Your task to perform on an android device: check android version Image 0: 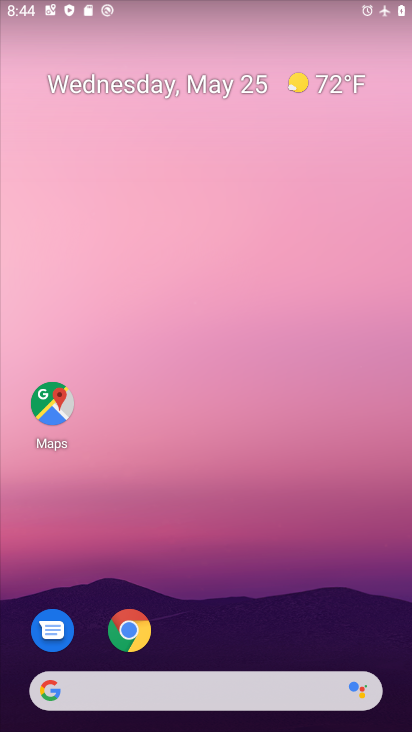
Step 0: drag from (226, 639) to (242, 203)
Your task to perform on an android device: check android version Image 1: 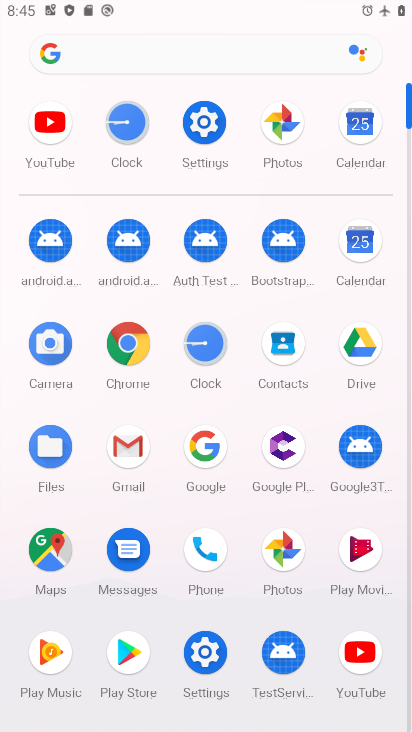
Step 1: click (207, 134)
Your task to perform on an android device: check android version Image 2: 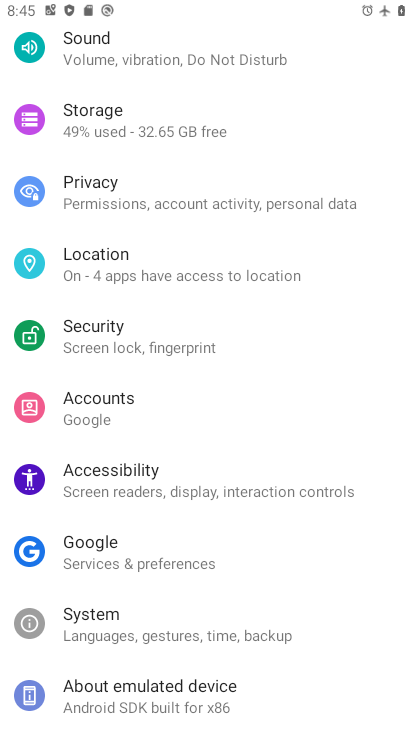
Step 2: drag from (259, 652) to (257, 246)
Your task to perform on an android device: check android version Image 3: 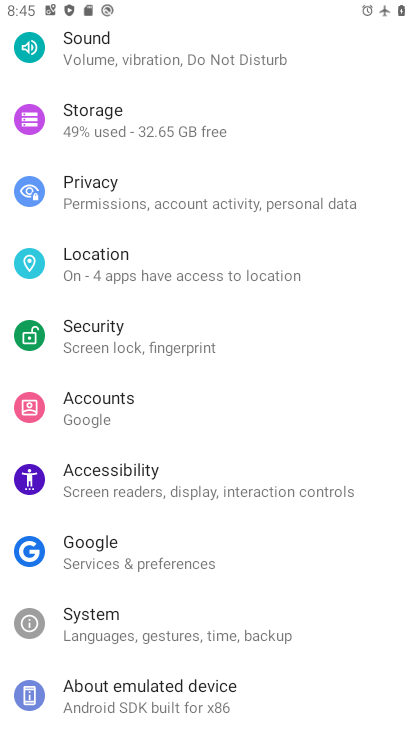
Step 3: drag from (204, 688) to (250, 465)
Your task to perform on an android device: check android version Image 4: 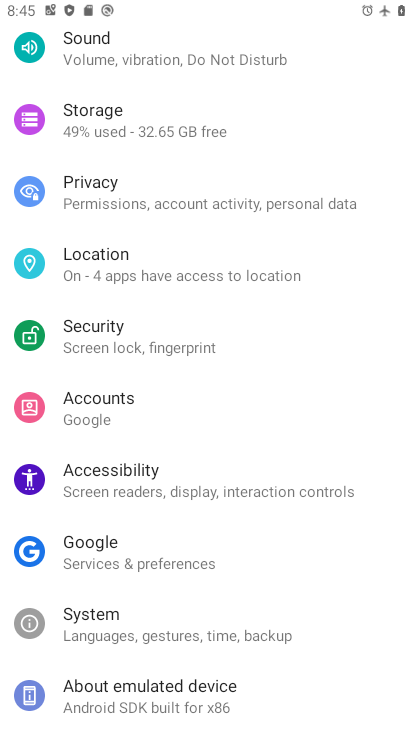
Step 4: click (195, 689)
Your task to perform on an android device: check android version Image 5: 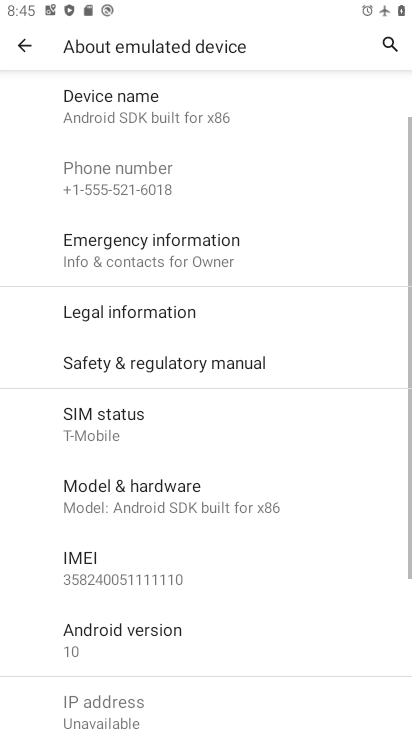
Step 5: drag from (236, 661) to (250, 321)
Your task to perform on an android device: check android version Image 6: 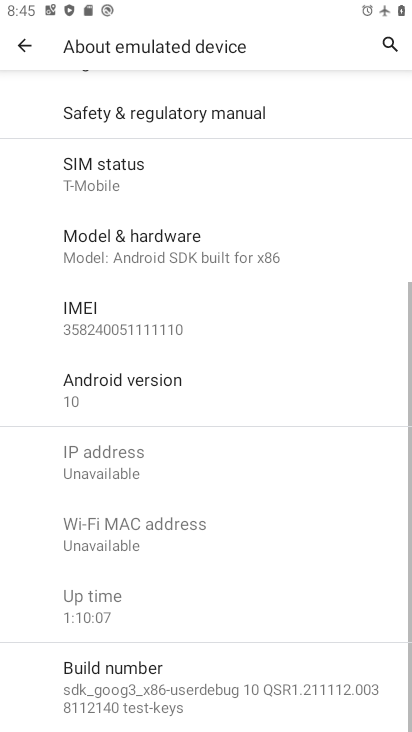
Step 6: drag from (164, 661) to (274, 387)
Your task to perform on an android device: check android version Image 7: 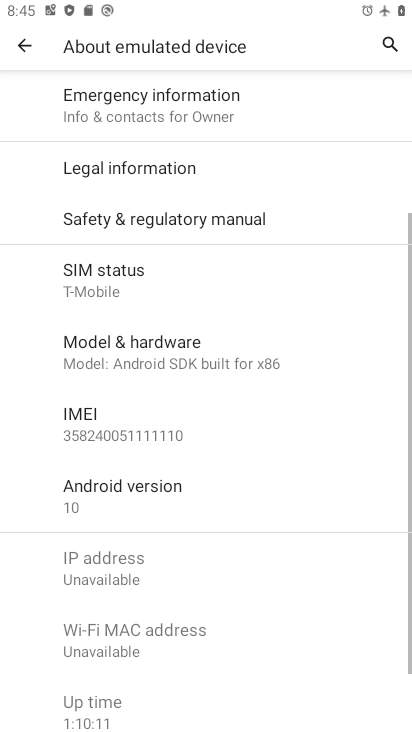
Step 7: click (174, 503)
Your task to perform on an android device: check android version Image 8: 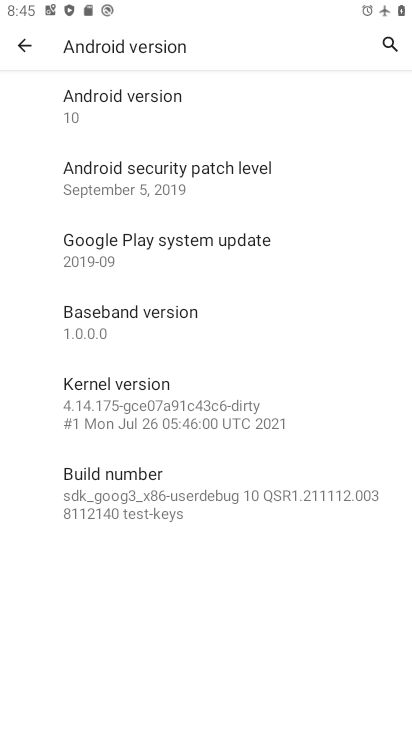
Step 8: click (114, 108)
Your task to perform on an android device: check android version Image 9: 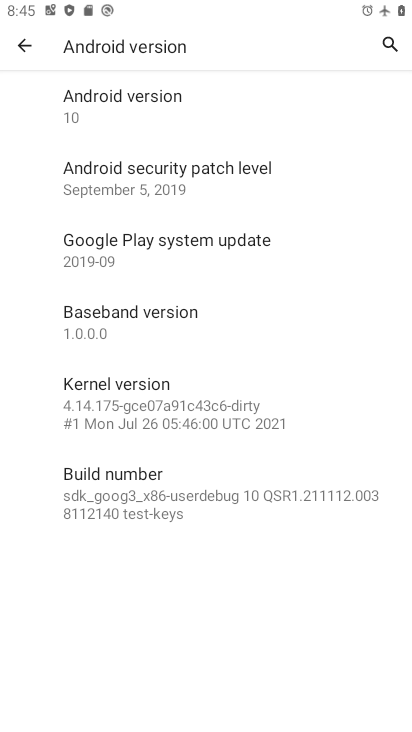
Step 9: click (79, 109)
Your task to perform on an android device: check android version Image 10: 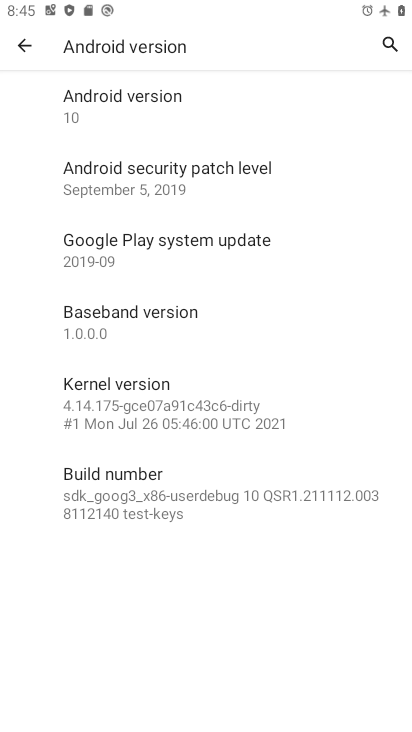
Step 10: click (79, 109)
Your task to perform on an android device: check android version Image 11: 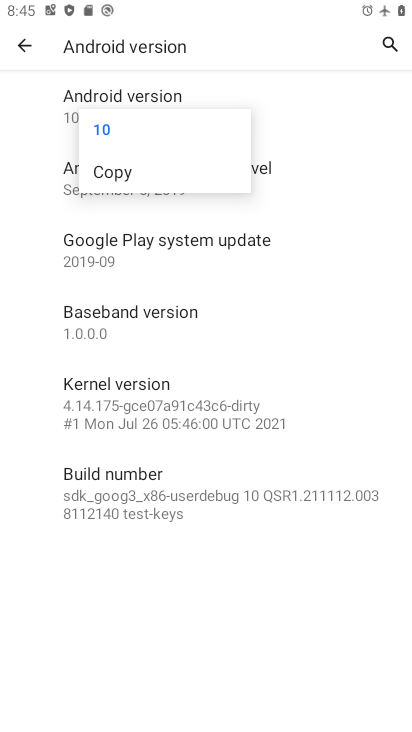
Step 11: task complete